Your task to perform on an android device: Go to internet settings Image 0: 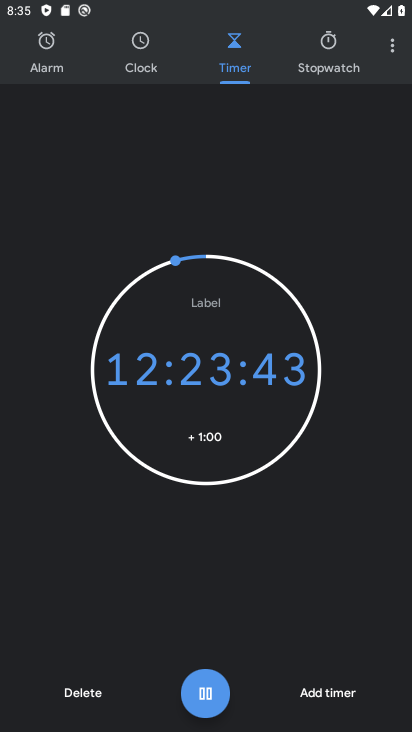
Step 0: press home button
Your task to perform on an android device: Go to internet settings Image 1: 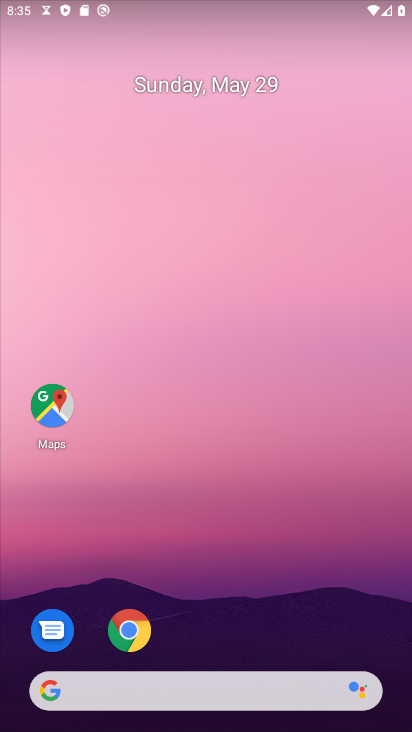
Step 1: drag from (244, 589) to (358, 60)
Your task to perform on an android device: Go to internet settings Image 2: 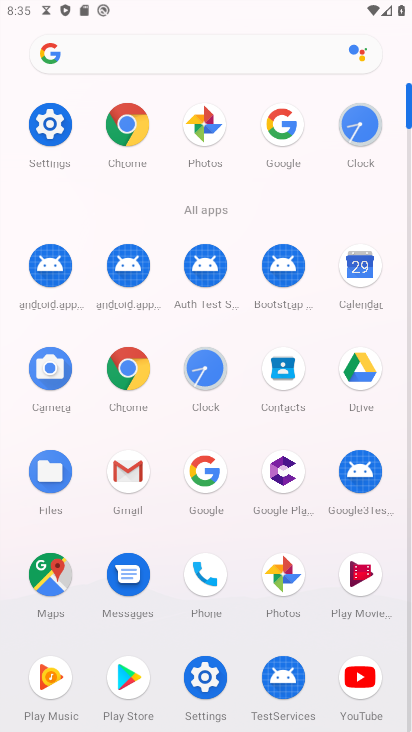
Step 2: click (46, 117)
Your task to perform on an android device: Go to internet settings Image 3: 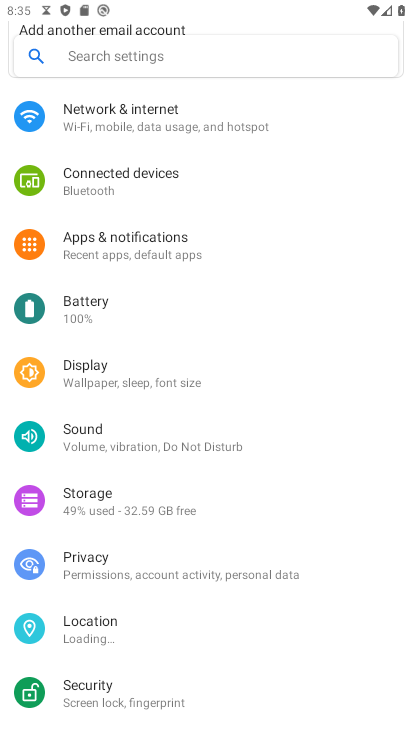
Step 3: click (211, 123)
Your task to perform on an android device: Go to internet settings Image 4: 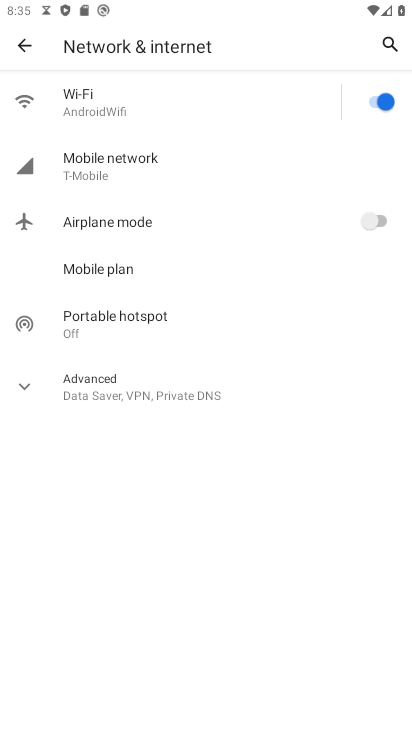
Step 4: click (211, 123)
Your task to perform on an android device: Go to internet settings Image 5: 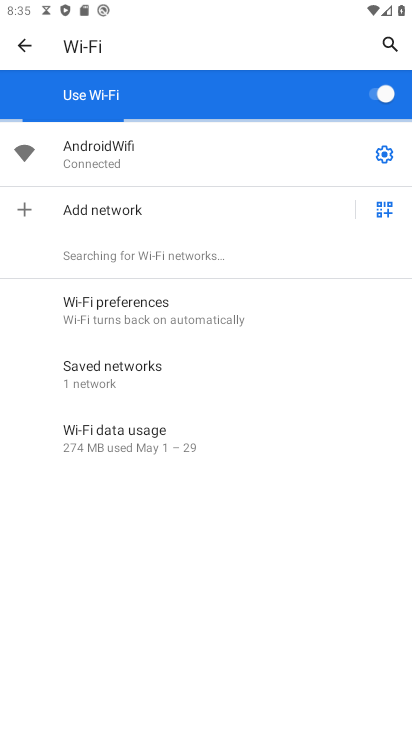
Step 5: task complete